Your task to perform on an android device: Do I have any events tomorrow? Image 0: 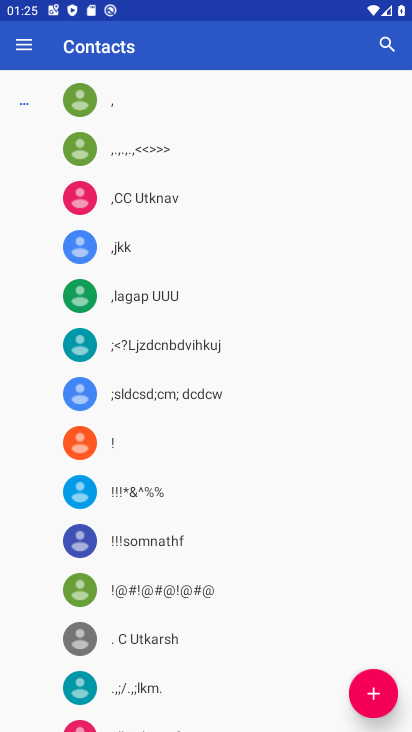
Step 0: press home button
Your task to perform on an android device: Do I have any events tomorrow? Image 1: 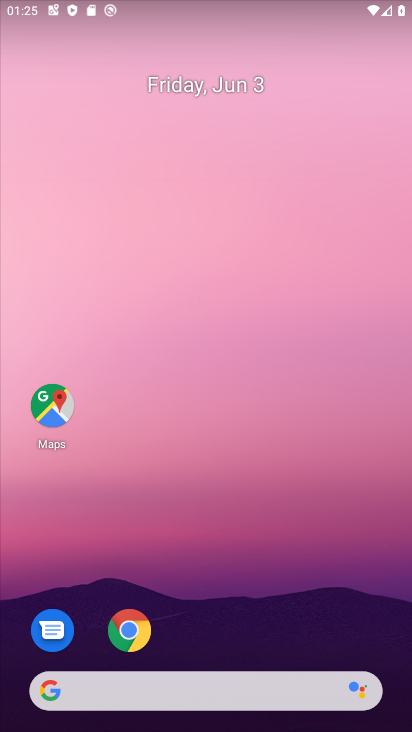
Step 1: drag from (213, 644) to (184, 205)
Your task to perform on an android device: Do I have any events tomorrow? Image 2: 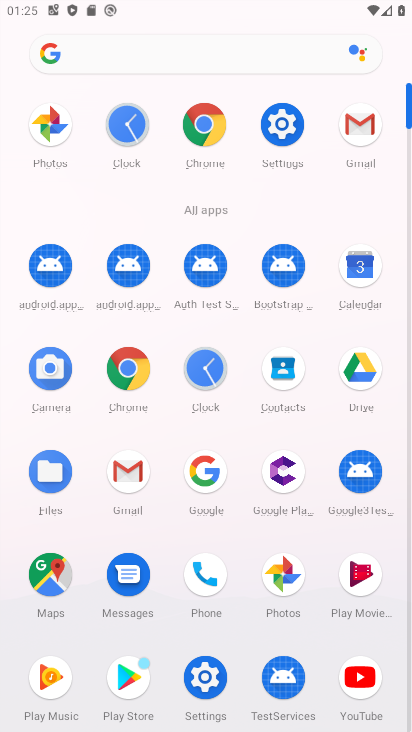
Step 2: click (371, 266)
Your task to perform on an android device: Do I have any events tomorrow? Image 3: 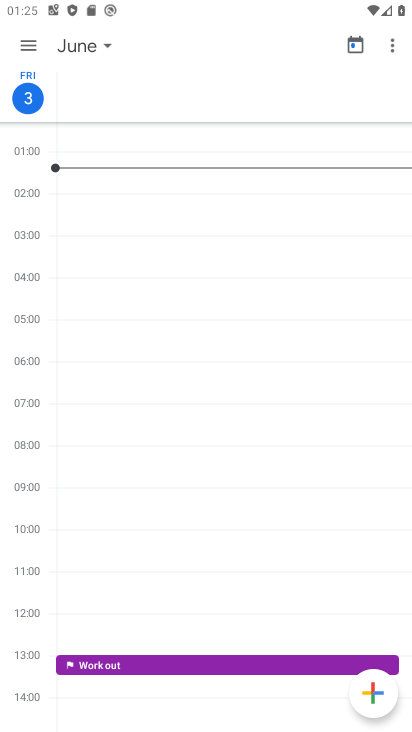
Step 3: click (31, 48)
Your task to perform on an android device: Do I have any events tomorrow? Image 4: 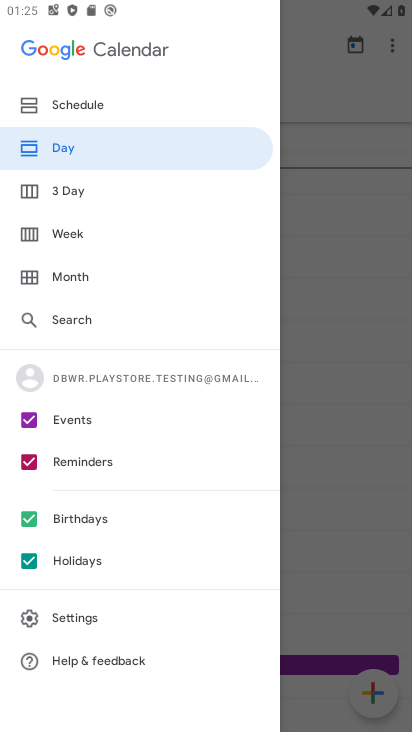
Step 4: click (108, 152)
Your task to perform on an android device: Do I have any events tomorrow? Image 5: 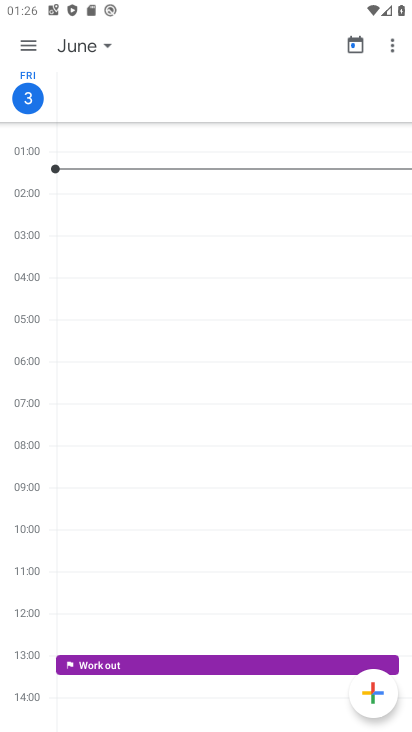
Step 5: click (30, 51)
Your task to perform on an android device: Do I have any events tomorrow? Image 6: 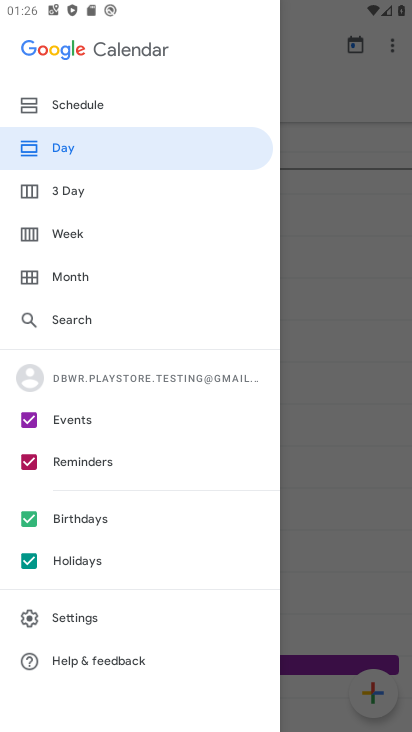
Step 6: click (34, 556)
Your task to perform on an android device: Do I have any events tomorrow? Image 7: 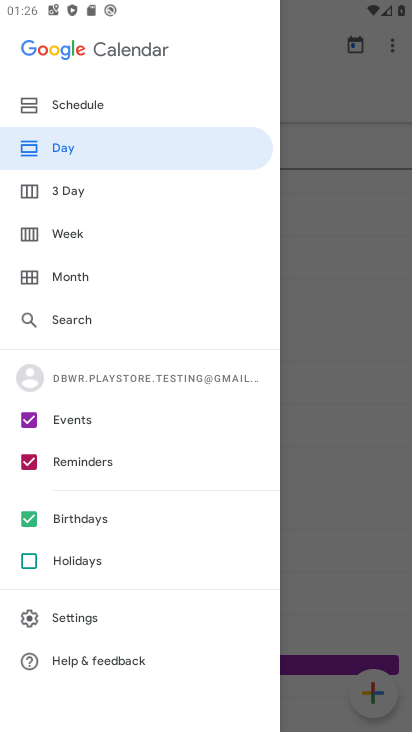
Step 7: click (28, 514)
Your task to perform on an android device: Do I have any events tomorrow? Image 8: 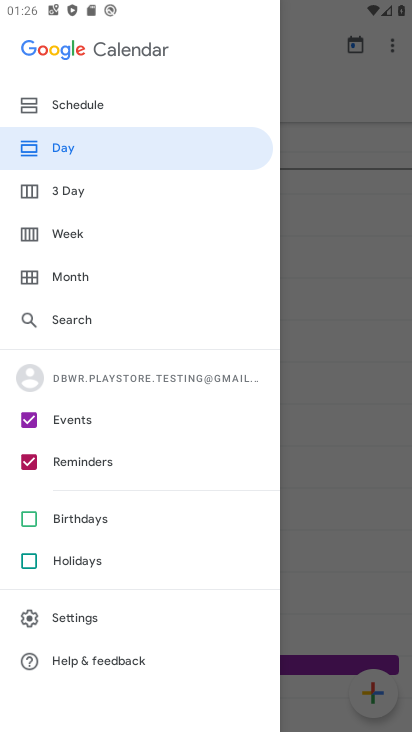
Step 8: click (33, 453)
Your task to perform on an android device: Do I have any events tomorrow? Image 9: 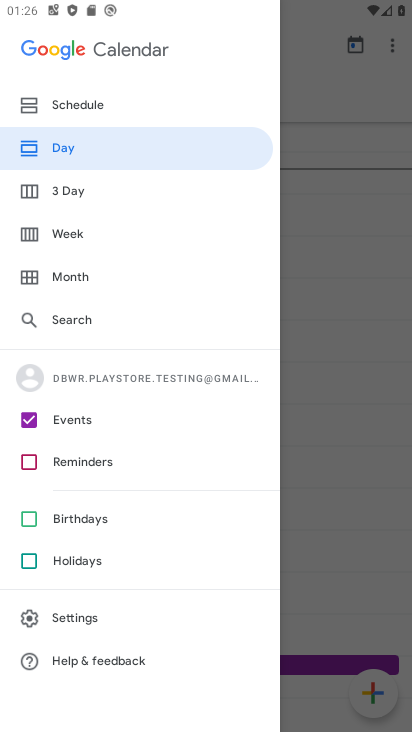
Step 9: click (73, 150)
Your task to perform on an android device: Do I have any events tomorrow? Image 10: 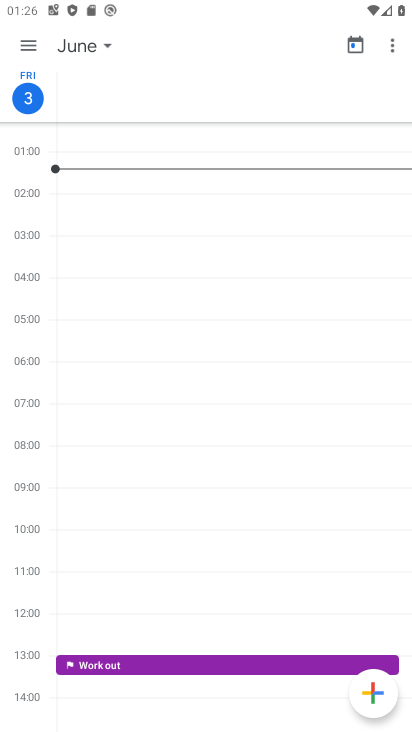
Step 10: click (110, 47)
Your task to perform on an android device: Do I have any events tomorrow? Image 11: 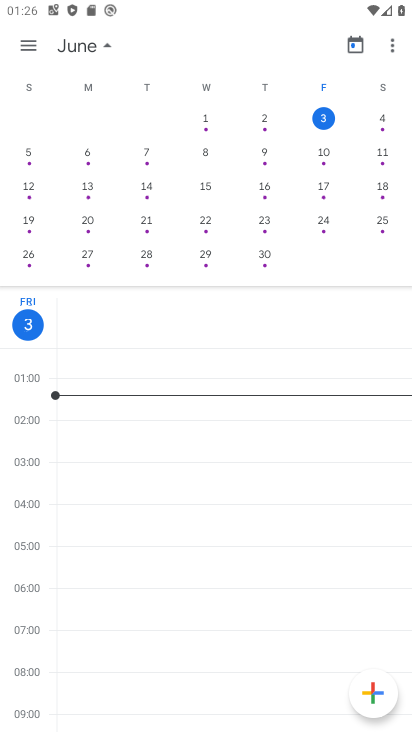
Step 11: click (383, 122)
Your task to perform on an android device: Do I have any events tomorrow? Image 12: 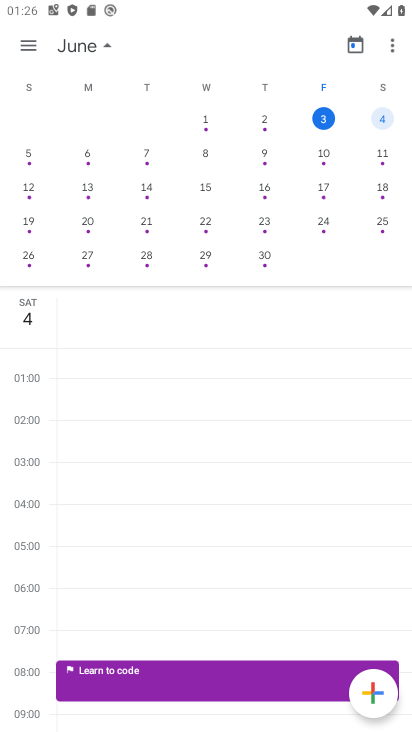
Step 12: task complete